Your task to perform on an android device: Open Yahoo.com Image 0: 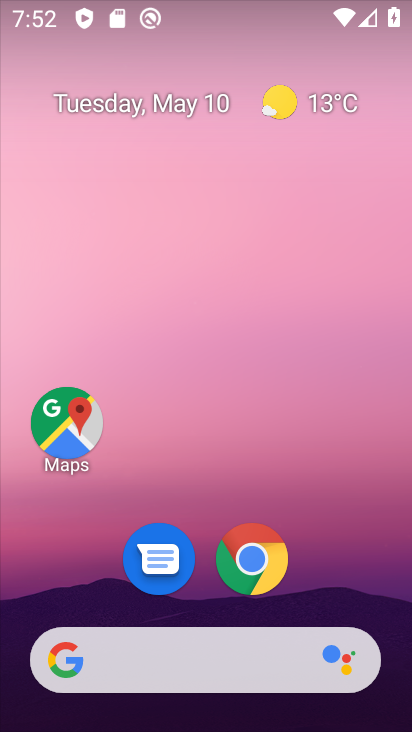
Step 0: click (254, 551)
Your task to perform on an android device: Open Yahoo.com Image 1: 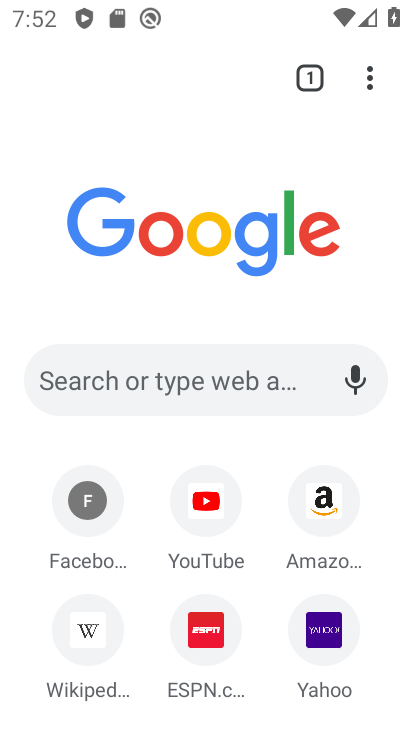
Step 1: click (192, 369)
Your task to perform on an android device: Open Yahoo.com Image 2: 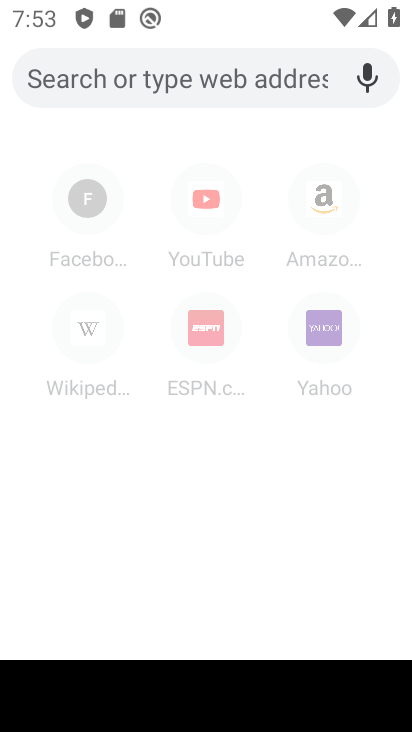
Step 2: type "Yahoo.com"
Your task to perform on an android device: Open Yahoo.com Image 3: 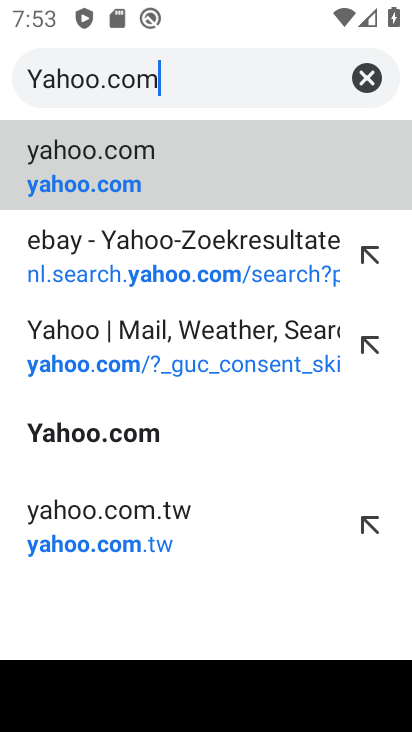
Step 3: type ""
Your task to perform on an android device: Open Yahoo.com Image 4: 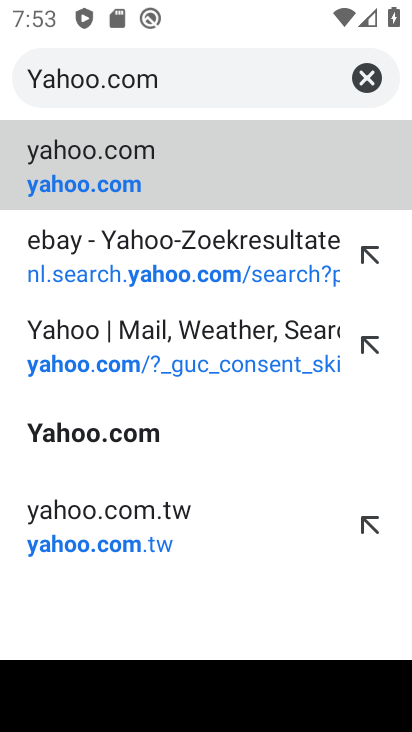
Step 4: click (138, 162)
Your task to perform on an android device: Open Yahoo.com Image 5: 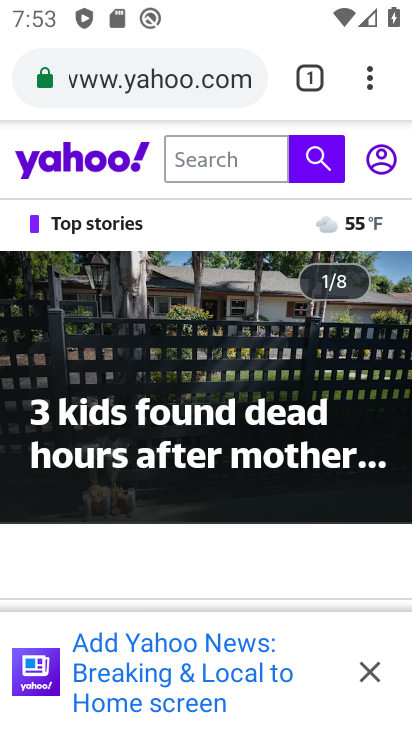
Step 5: task complete